Your task to perform on an android device: Open my contact list Image 0: 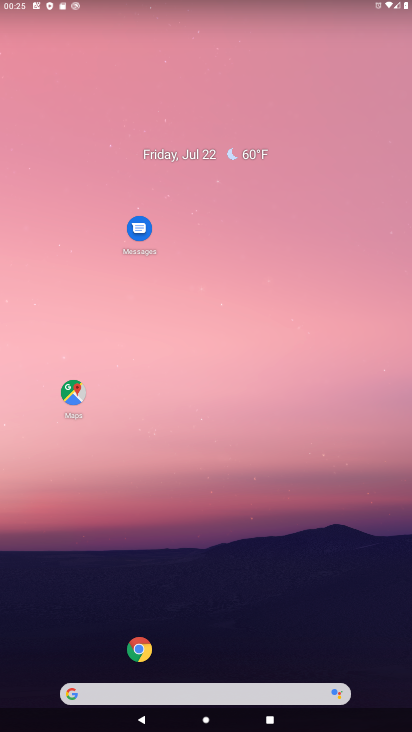
Step 0: drag from (23, 664) to (128, 177)
Your task to perform on an android device: Open my contact list Image 1: 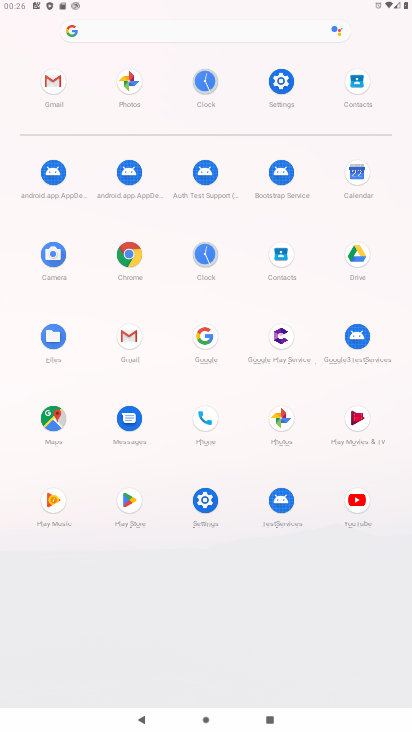
Step 1: click (355, 91)
Your task to perform on an android device: Open my contact list Image 2: 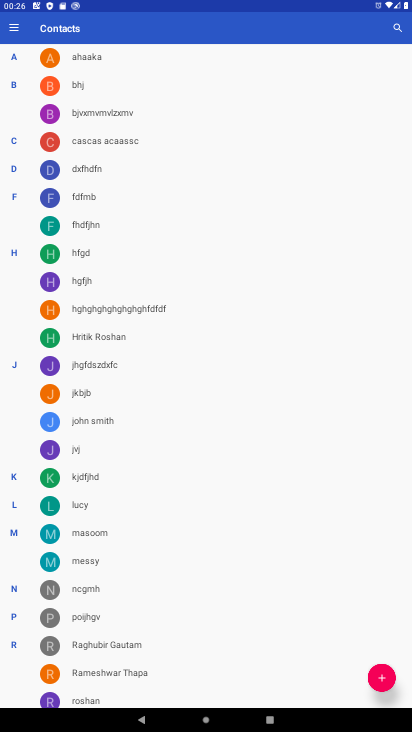
Step 2: click (383, 683)
Your task to perform on an android device: Open my contact list Image 3: 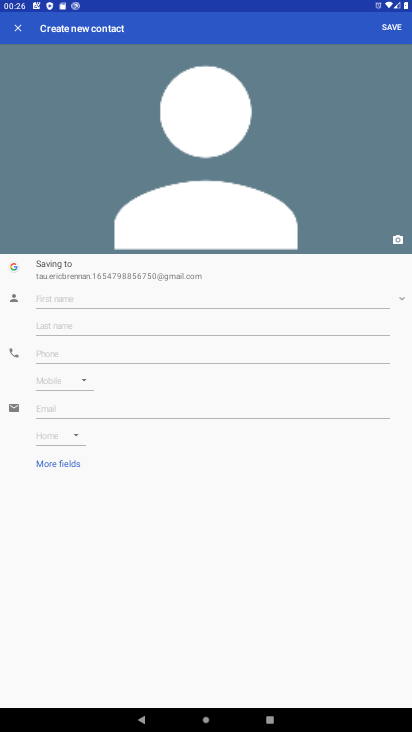
Step 3: click (87, 302)
Your task to perform on an android device: Open my contact list Image 4: 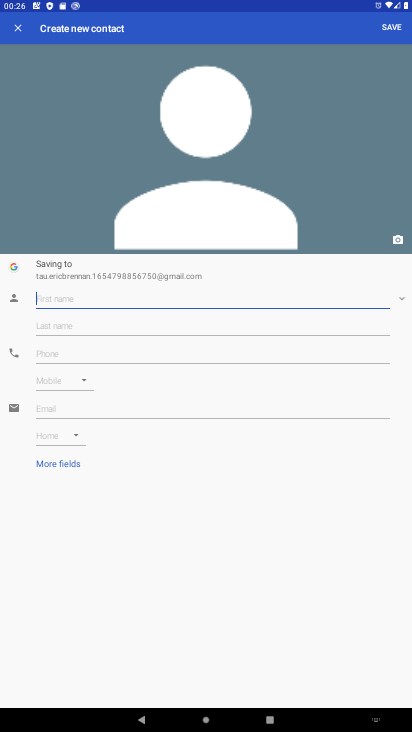
Step 4: type "fgftjuuffgn"
Your task to perform on an android device: Open my contact list Image 5: 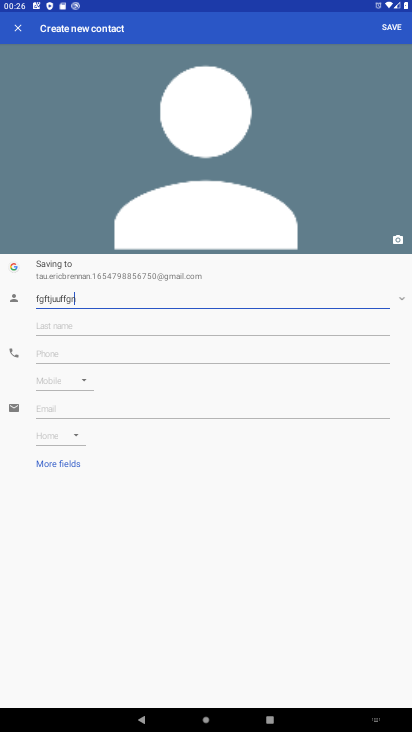
Step 5: type ""
Your task to perform on an android device: Open my contact list Image 6: 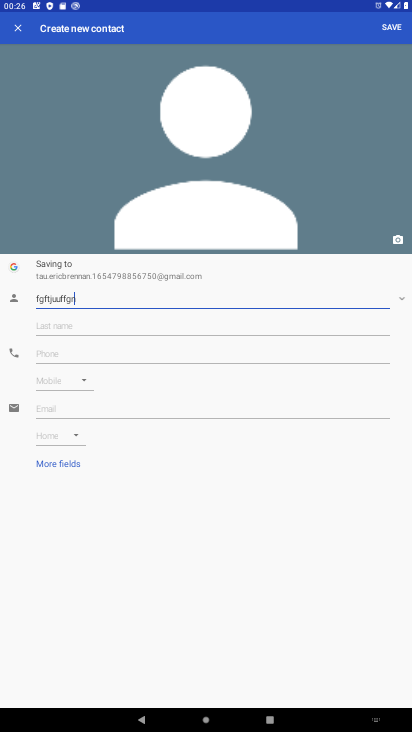
Step 6: click (398, 36)
Your task to perform on an android device: Open my contact list Image 7: 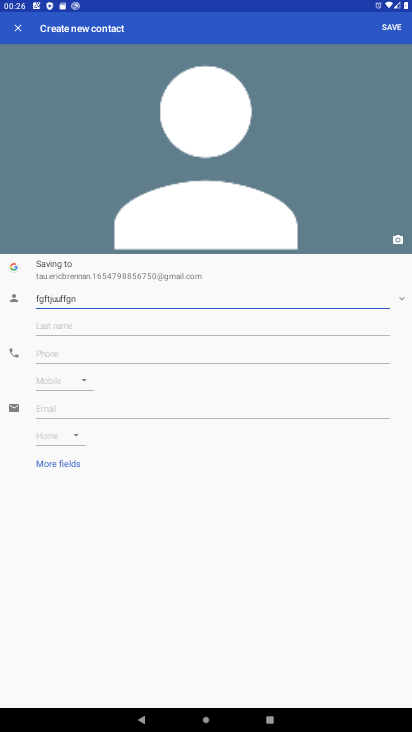
Step 7: click (395, 30)
Your task to perform on an android device: Open my contact list Image 8: 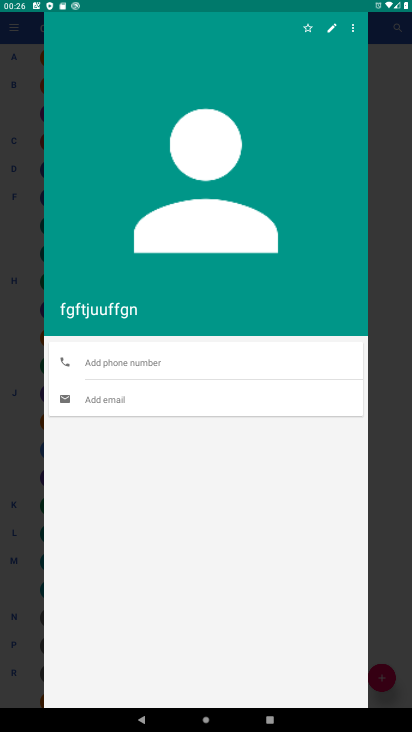
Step 8: task complete